Your task to perform on an android device: Empty the shopping cart on bestbuy. Search for logitech g933 on bestbuy, select the first entry, add it to the cart, then select checkout. Image 0: 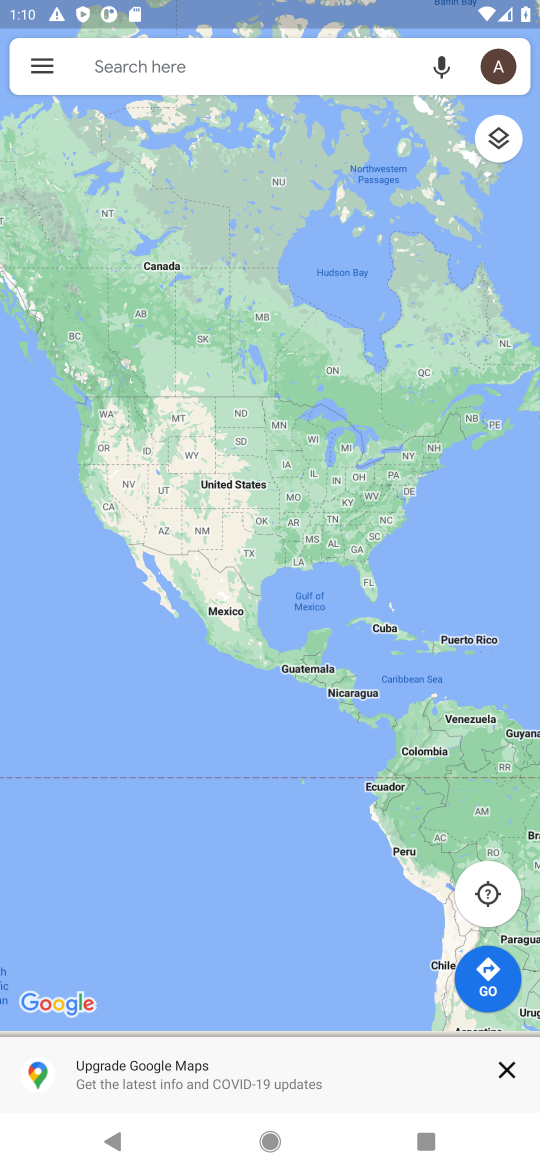
Step 0: press home button
Your task to perform on an android device: Empty the shopping cart on bestbuy. Search for logitech g933 on bestbuy, select the first entry, add it to the cart, then select checkout. Image 1: 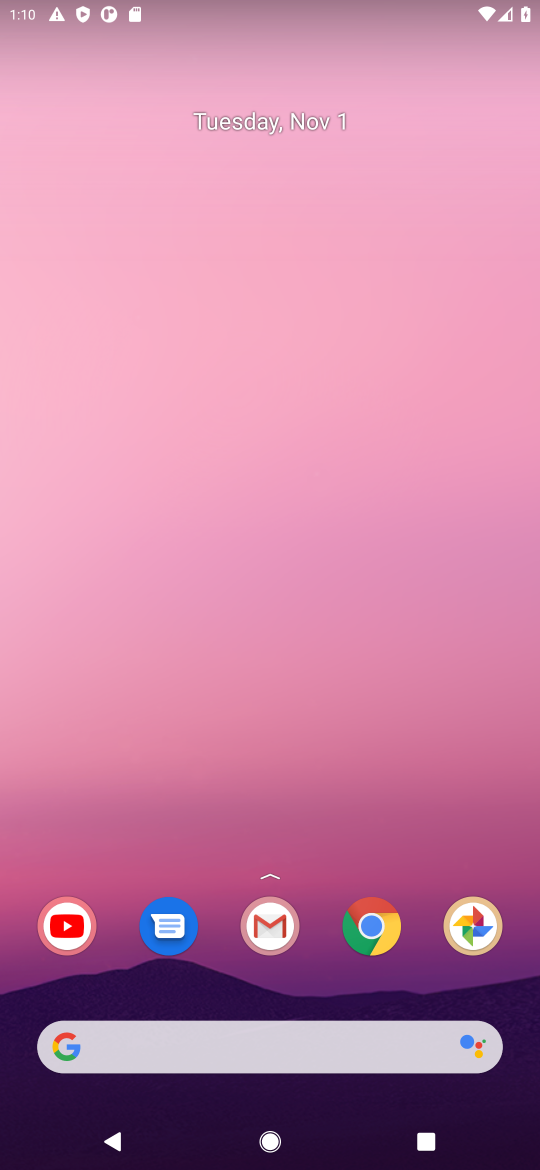
Step 1: click (356, 923)
Your task to perform on an android device: Empty the shopping cart on bestbuy. Search for logitech g933 on bestbuy, select the first entry, add it to the cart, then select checkout. Image 2: 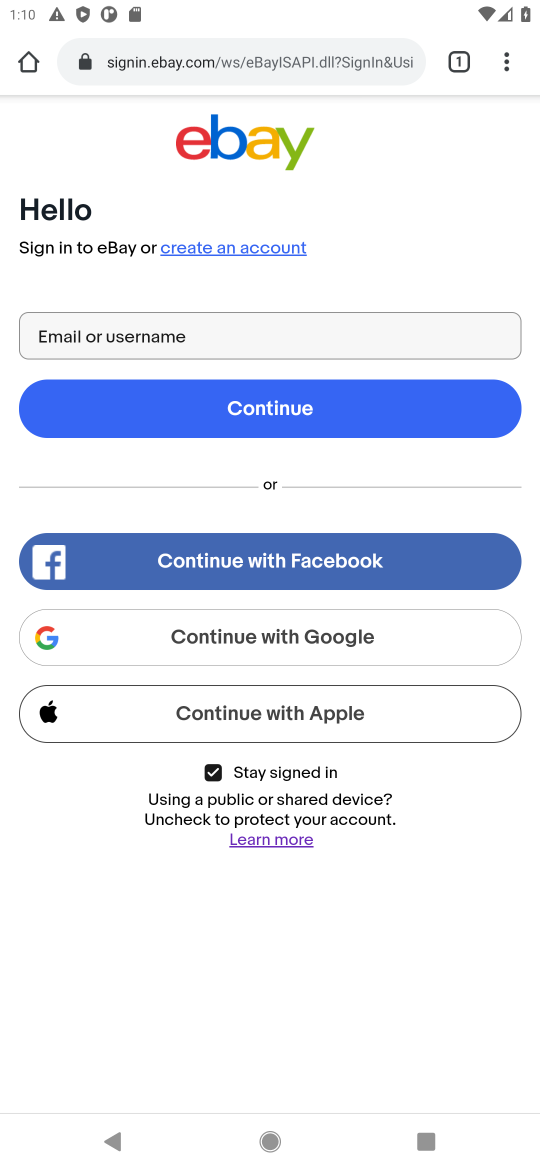
Step 2: click (169, 59)
Your task to perform on an android device: Empty the shopping cart on bestbuy. Search for logitech g933 on bestbuy, select the first entry, add it to the cart, then select checkout. Image 3: 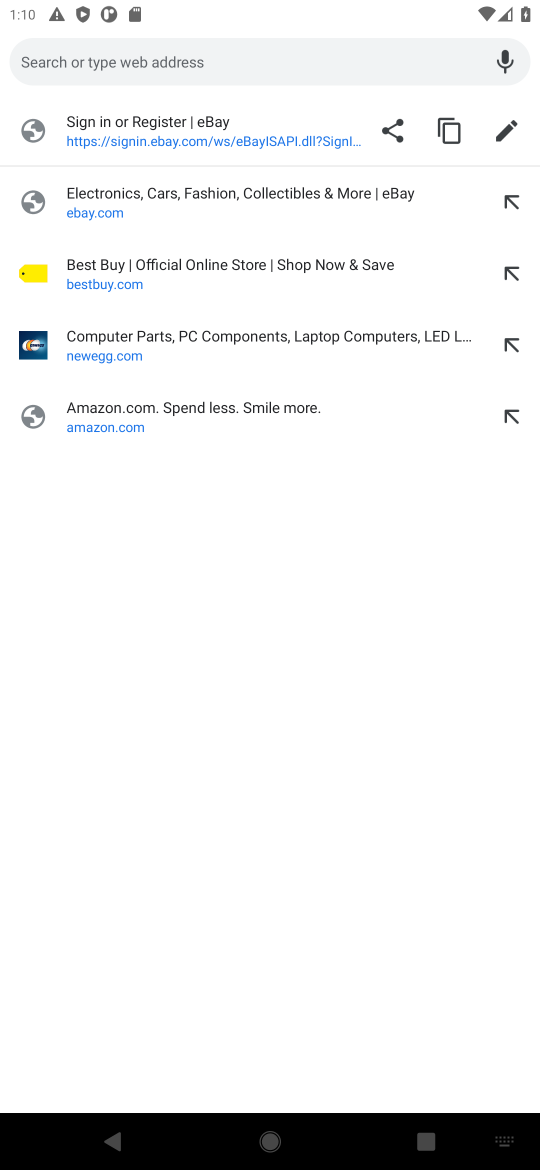
Step 3: type "bestbuy"
Your task to perform on an android device: Empty the shopping cart on bestbuy. Search for logitech g933 on bestbuy, select the first entry, add it to the cart, then select checkout. Image 4: 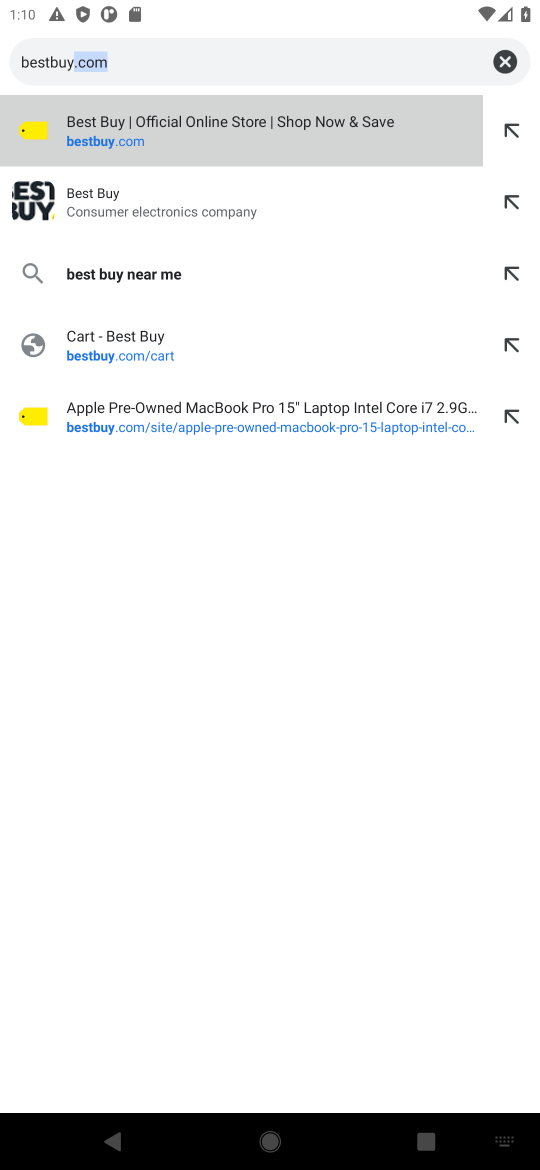
Step 4: press enter
Your task to perform on an android device: Empty the shopping cart on bestbuy. Search for logitech g933 on bestbuy, select the first entry, add it to the cart, then select checkout. Image 5: 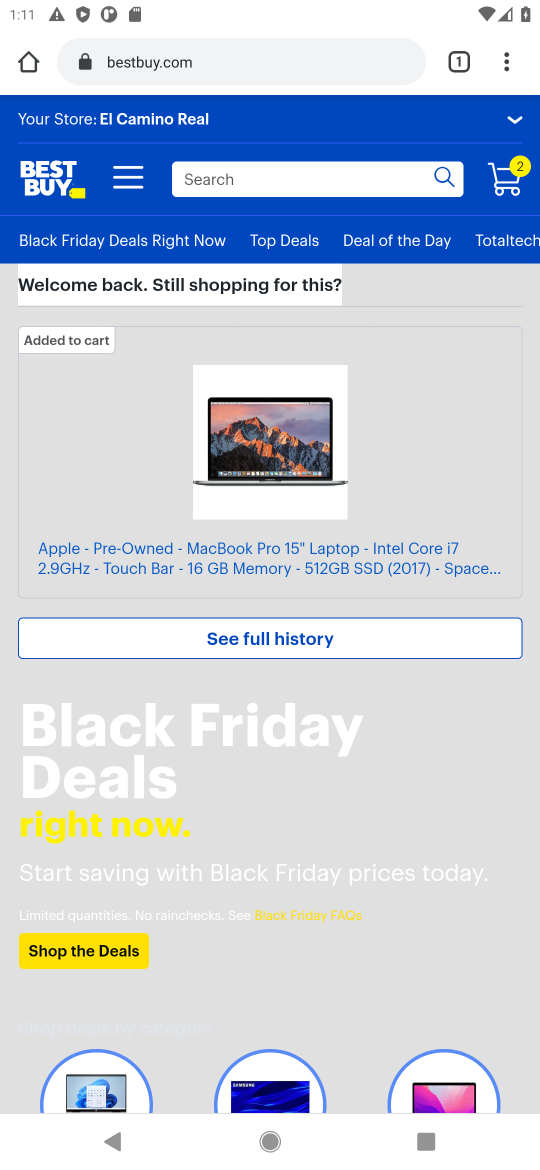
Step 5: click (517, 169)
Your task to perform on an android device: Empty the shopping cart on bestbuy. Search for logitech g933 on bestbuy, select the first entry, add it to the cart, then select checkout. Image 6: 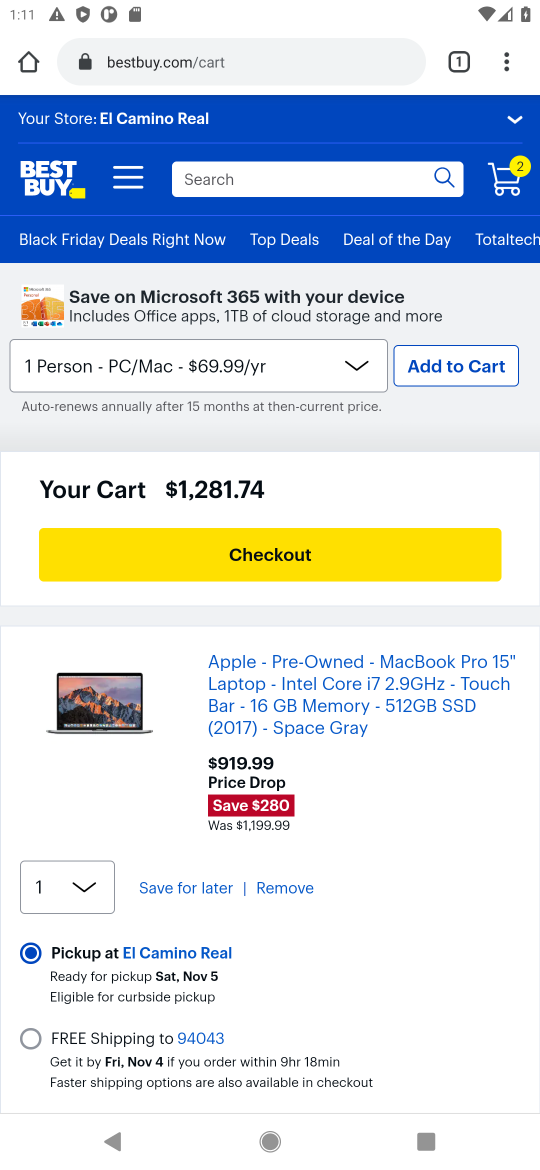
Step 6: click (284, 886)
Your task to perform on an android device: Empty the shopping cart on bestbuy. Search for logitech g933 on bestbuy, select the first entry, add it to the cart, then select checkout. Image 7: 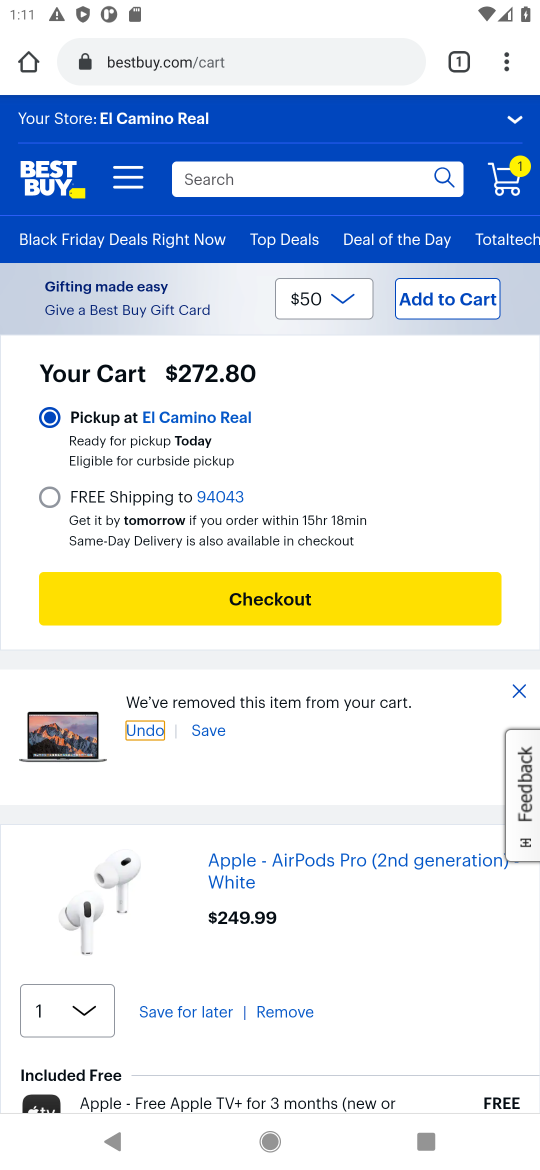
Step 7: click (285, 1010)
Your task to perform on an android device: Empty the shopping cart on bestbuy. Search for logitech g933 on bestbuy, select the first entry, add it to the cart, then select checkout. Image 8: 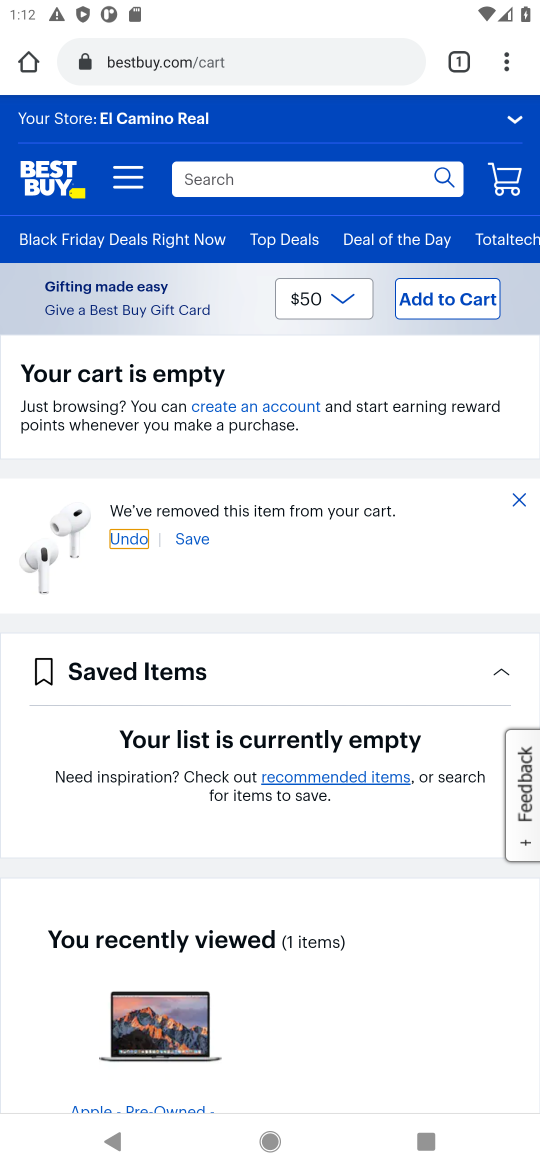
Step 8: click (315, 169)
Your task to perform on an android device: Empty the shopping cart on bestbuy. Search for logitech g933 on bestbuy, select the first entry, add it to the cart, then select checkout. Image 9: 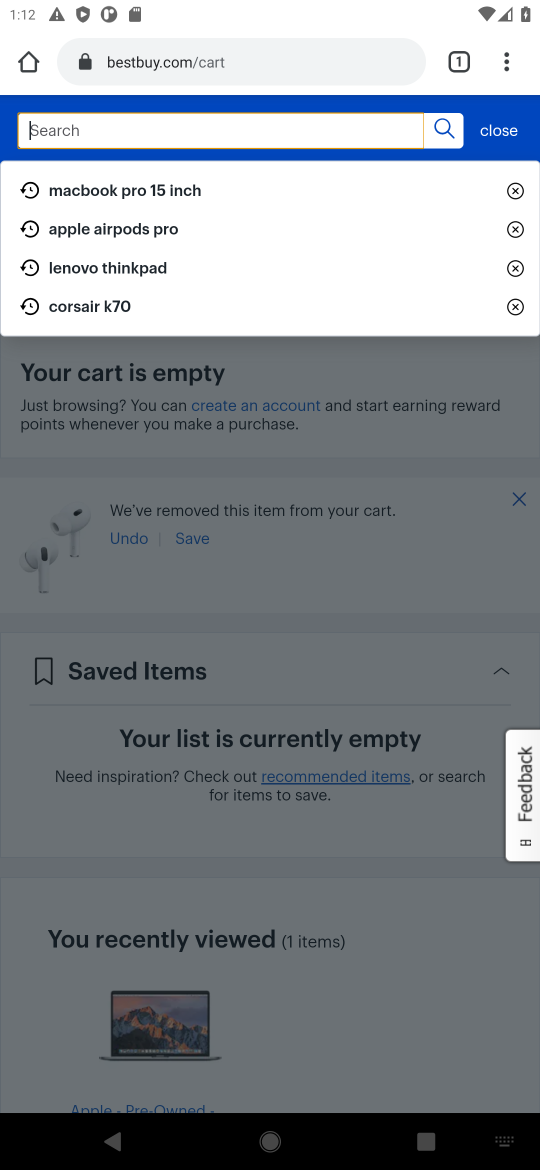
Step 9: type "logitech g933"
Your task to perform on an android device: Empty the shopping cart on bestbuy. Search for logitech g933 on bestbuy, select the first entry, add it to the cart, then select checkout. Image 10: 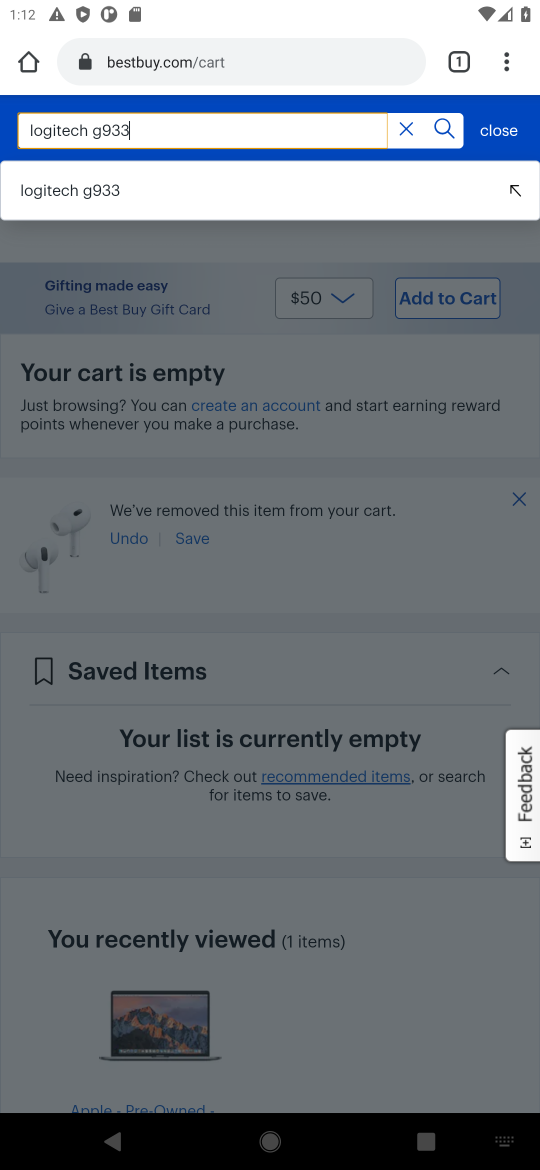
Step 10: click (169, 196)
Your task to perform on an android device: Empty the shopping cart on bestbuy. Search for logitech g933 on bestbuy, select the first entry, add it to the cart, then select checkout. Image 11: 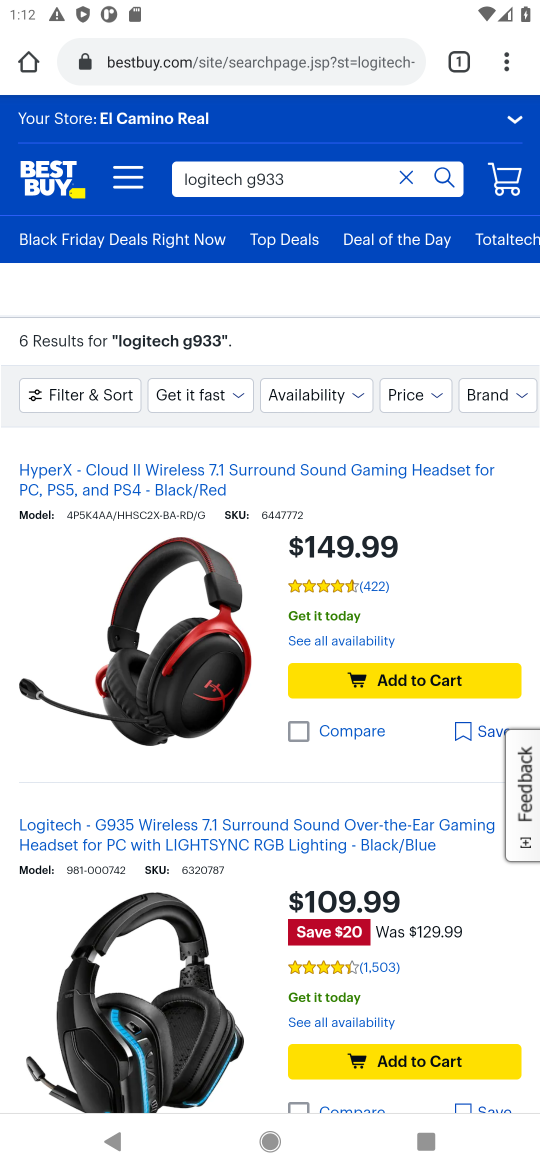
Step 11: click (207, 633)
Your task to perform on an android device: Empty the shopping cart on bestbuy. Search for logitech g933 on bestbuy, select the first entry, add it to the cart, then select checkout. Image 12: 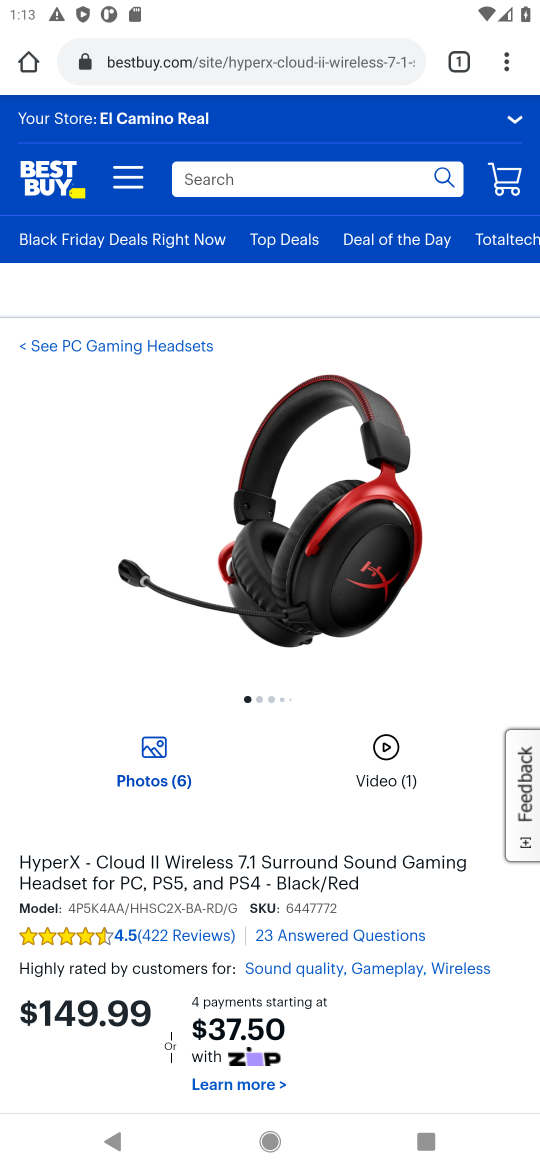
Step 12: drag from (259, 846) to (245, 457)
Your task to perform on an android device: Empty the shopping cart on bestbuy. Search for logitech g933 on bestbuy, select the first entry, add it to the cart, then select checkout. Image 13: 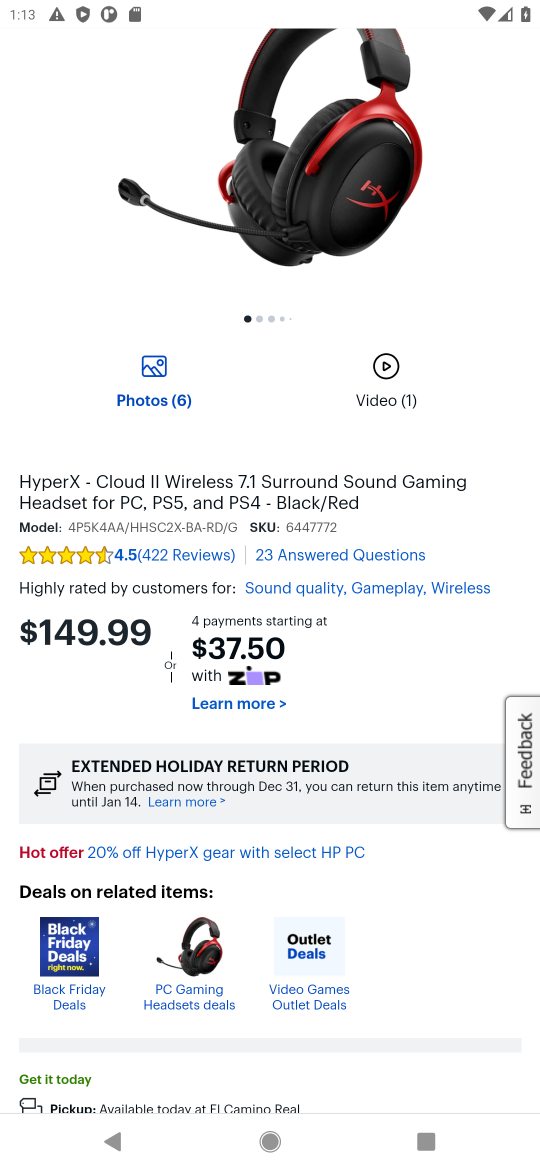
Step 13: drag from (125, 298) to (221, 348)
Your task to perform on an android device: Empty the shopping cart on bestbuy. Search for logitech g933 on bestbuy, select the first entry, add it to the cart, then select checkout. Image 14: 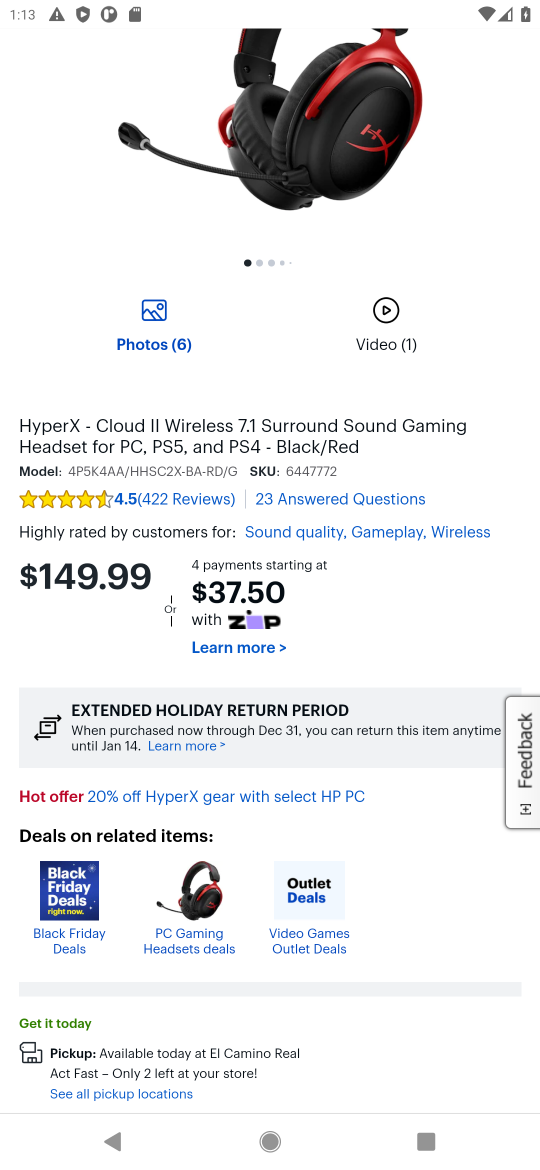
Step 14: drag from (426, 987) to (412, 580)
Your task to perform on an android device: Empty the shopping cart on bestbuy. Search for logitech g933 on bestbuy, select the first entry, add it to the cart, then select checkout. Image 15: 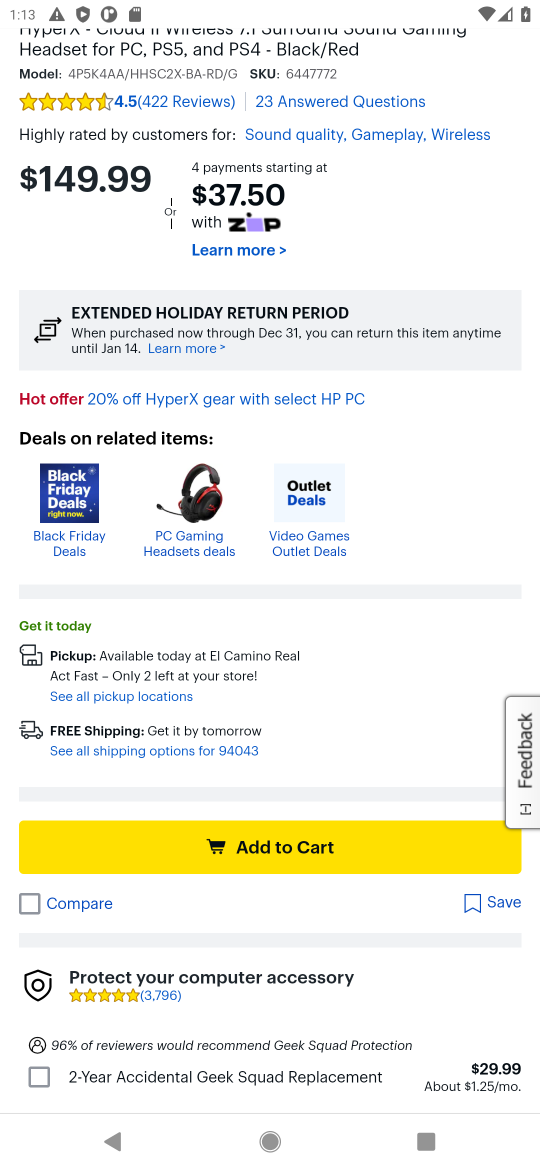
Step 15: click (282, 850)
Your task to perform on an android device: Empty the shopping cart on bestbuy. Search for logitech g933 on bestbuy, select the first entry, add it to the cart, then select checkout. Image 16: 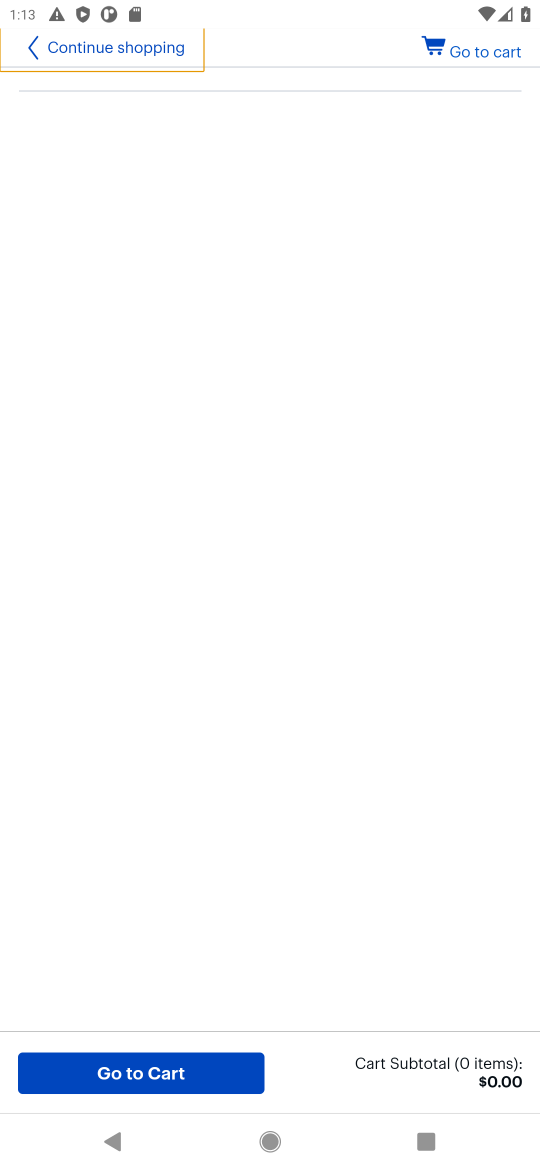
Step 16: click (394, 574)
Your task to perform on an android device: Empty the shopping cart on bestbuy. Search for logitech g933 on bestbuy, select the first entry, add it to the cart, then select checkout. Image 17: 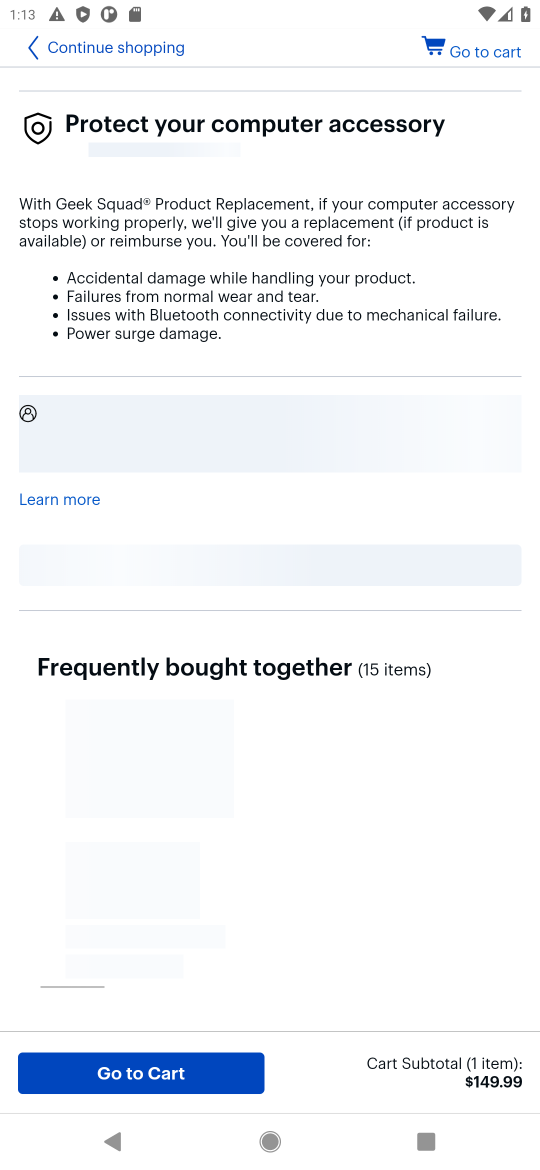
Step 17: click (124, 1070)
Your task to perform on an android device: Empty the shopping cart on bestbuy. Search for logitech g933 on bestbuy, select the first entry, add it to the cart, then select checkout. Image 18: 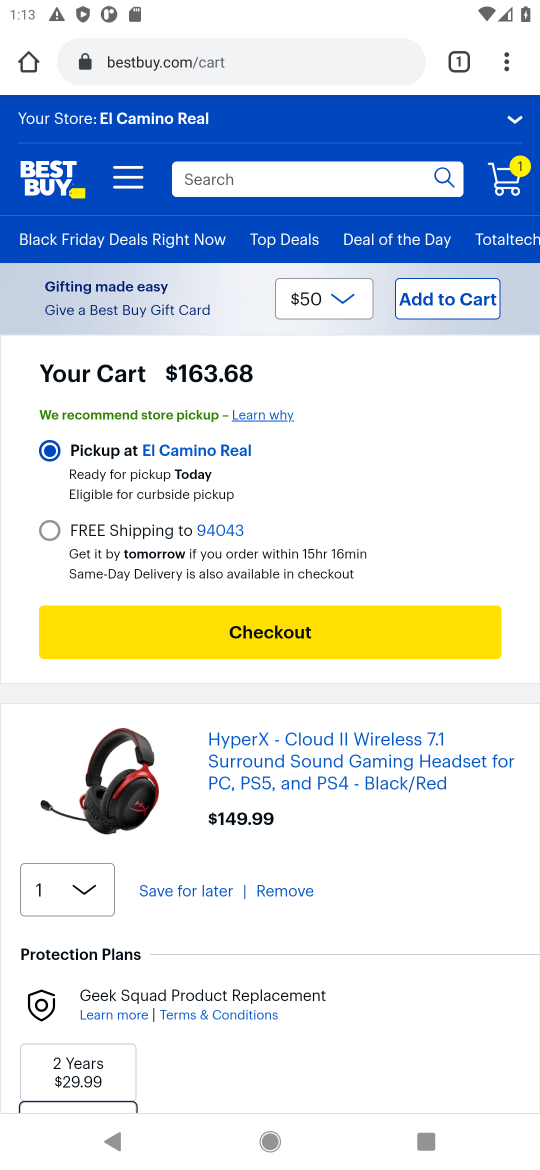
Step 18: click (357, 635)
Your task to perform on an android device: Empty the shopping cart on bestbuy. Search for logitech g933 on bestbuy, select the first entry, add it to the cart, then select checkout. Image 19: 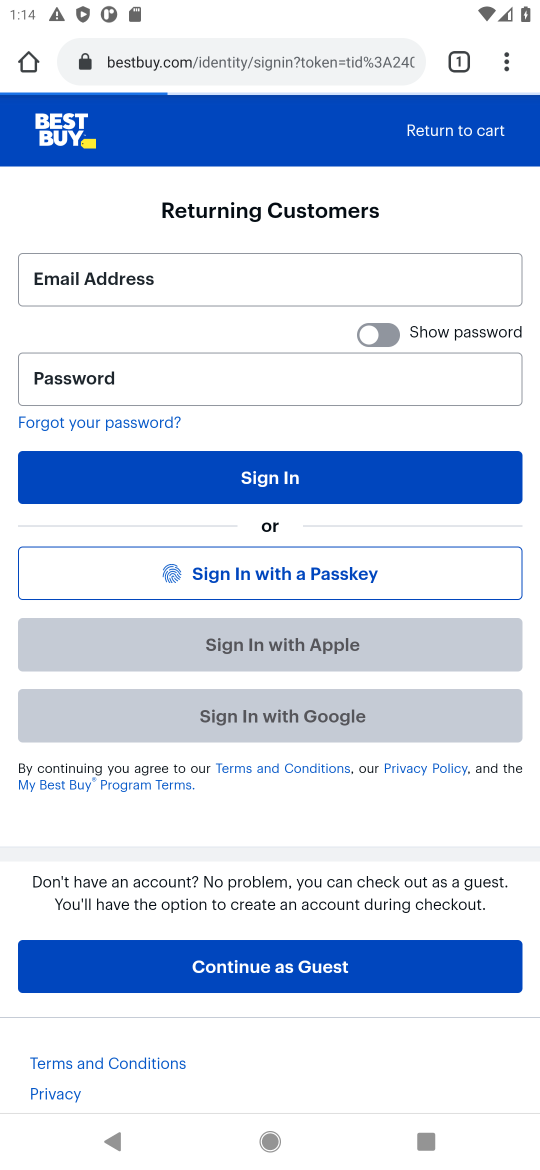
Step 19: task complete